Your task to perform on an android device: Search for seafood restaurants on Google Maps Image 0: 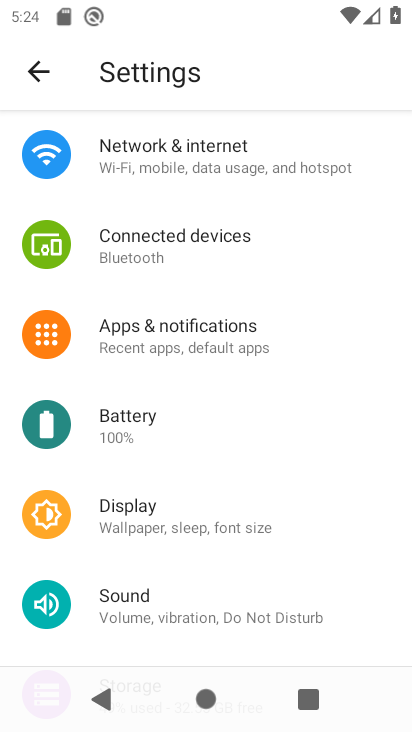
Step 0: press home button
Your task to perform on an android device: Search for seafood restaurants on Google Maps Image 1: 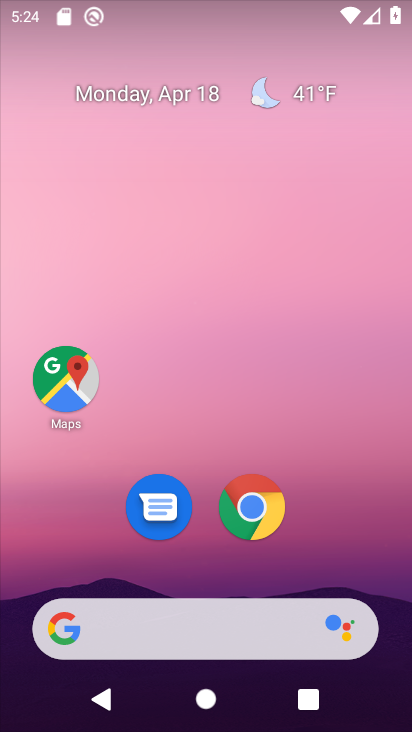
Step 1: drag from (167, 485) to (200, 60)
Your task to perform on an android device: Search for seafood restaurants on Google Maps Image 2: 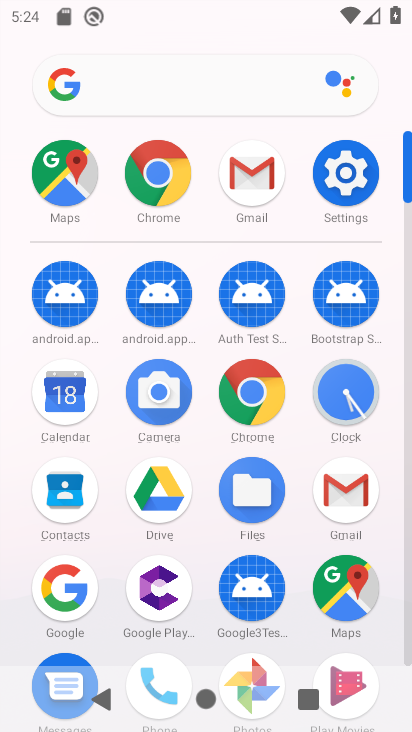
Step 2: drag from (304, 526) to (266, 229)
Your task to perform on an android device: Search for seafood restaurants on Google Maps Image 3: 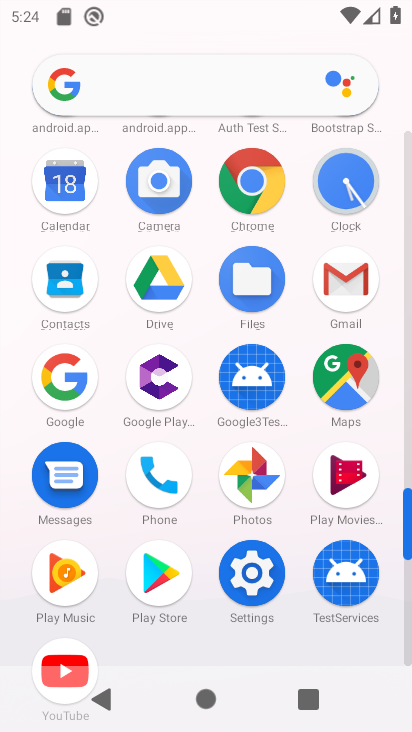
Step 3: click (342, 392)
Your task to perform on an android device: Search for seafood restaurants on Google Maps Image 4: 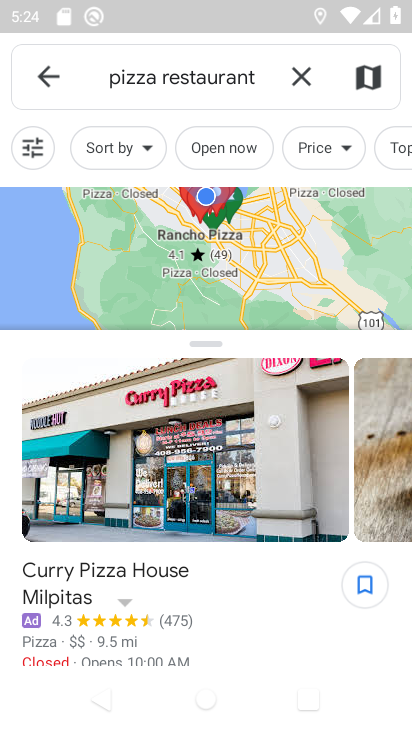
Step 4: click (300, 71)
Your task to perform on an android device: Search for seafood restaurants on Google Maps Image 5: 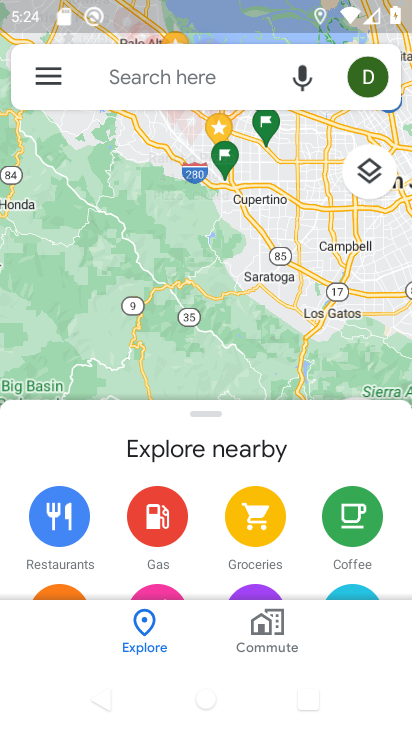
Step 5: click (216, 84)
Your task to perform on an android device: Search for seafood restaurants on Google Maps Image 6: 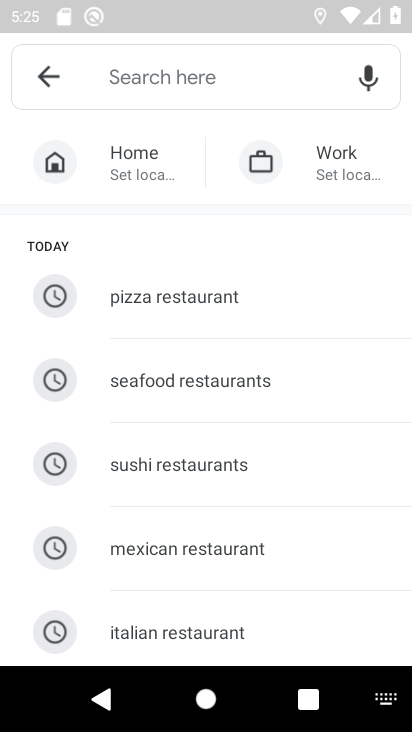
Step 6: type "seafood restaurant"
Your task to perform on an android device: Search for seafood restaurants on Google Maps Image 7: 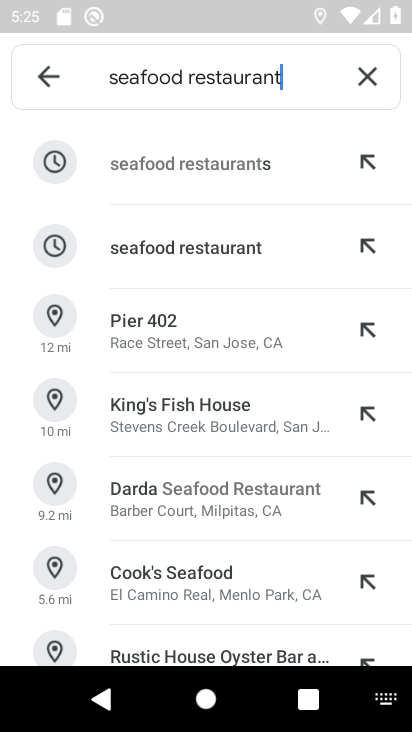
Step 7: click (159, 179)
Your task to perform on an android device: Search for seafood restaurants on Google Maps Image 8: 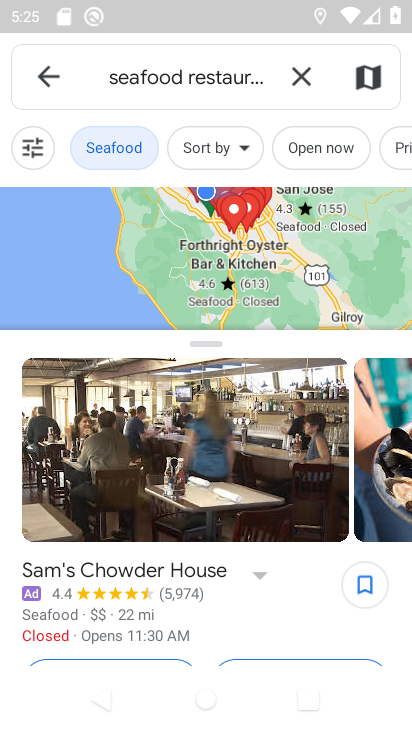
Step 8: task complete